Your task to perform on an android device: change alarm snooze length Image 0: 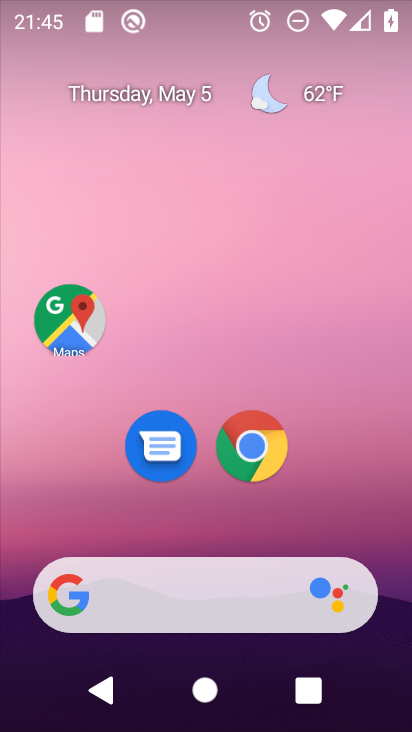
Step 0: drag from (309, 647) to (199, 151)
Your task to perform on an android device: change alarm snooze length Image 1: 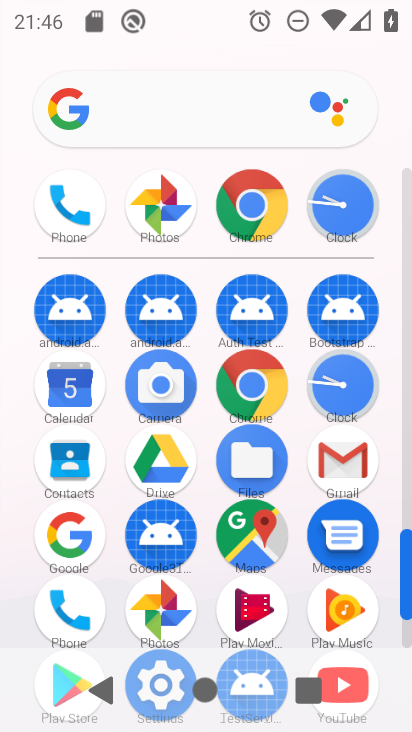
Step 1: drag from (116, 507) to (109, 385)
Your task to perform on an android device: change alarm snooze length Image 2: 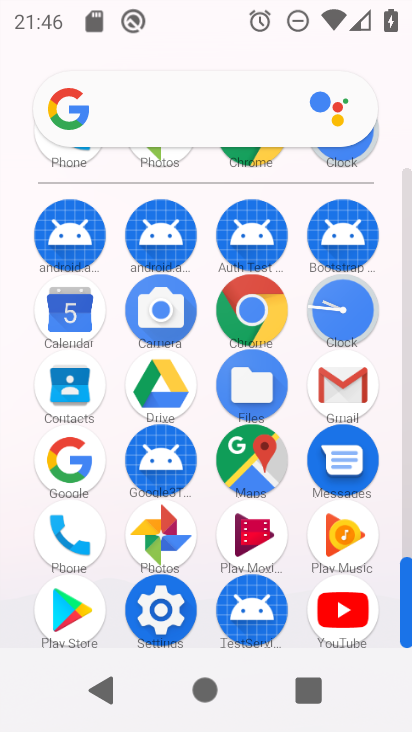
Step 2: click (173, 611)
Your task to perform on an android device: change alarm snooze length Image 3: 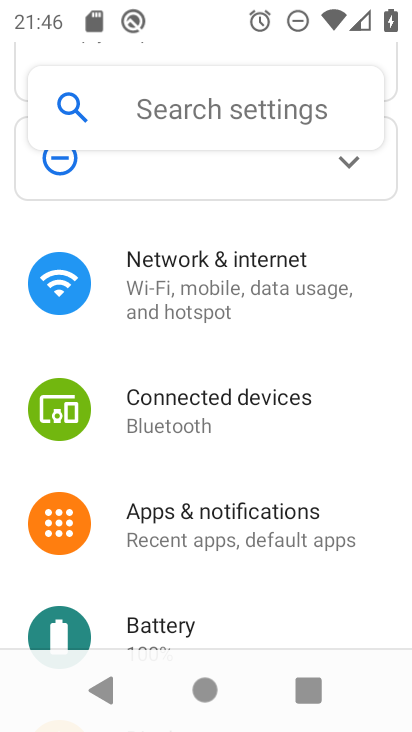
Step 3: press home button
Your task to perform on an android device: change alarm snooze length Image 4: 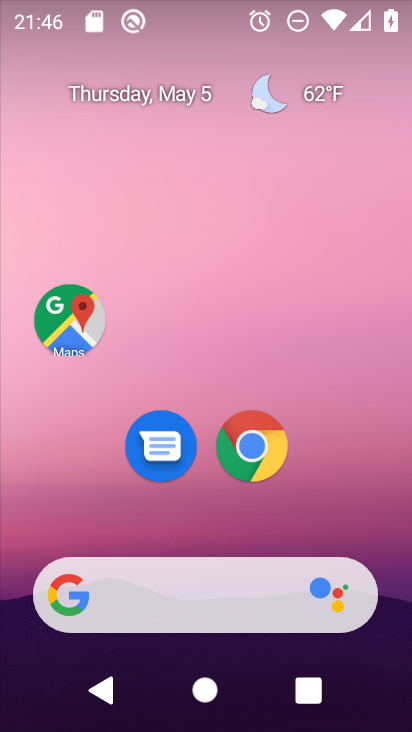
Step 4: drag from (326, 634) to (278, 271)
Your task to perform on an android device: change alarm snooze length Image 5: 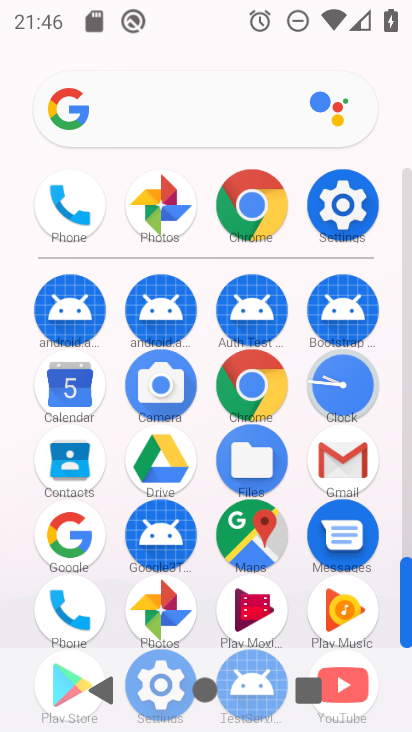
Step 5: click (353, 384)
Your task to perform on an android device: change alarm snooze length Image 6: 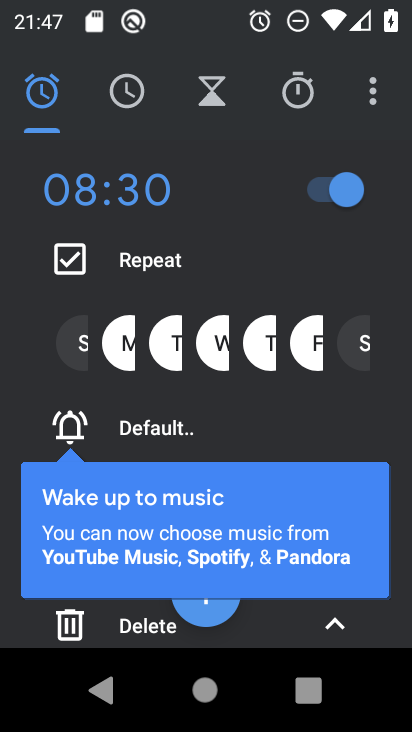
Step 6: click (362, 105)
Your task to perform on an android device: change alarm snooze length Image 7: 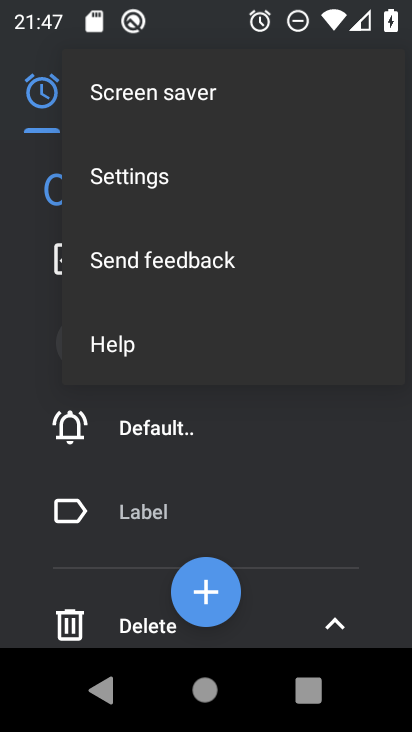
Step 7: click (208, 175)
Your task to perform on an android device: change alarm snooze length Image 8: 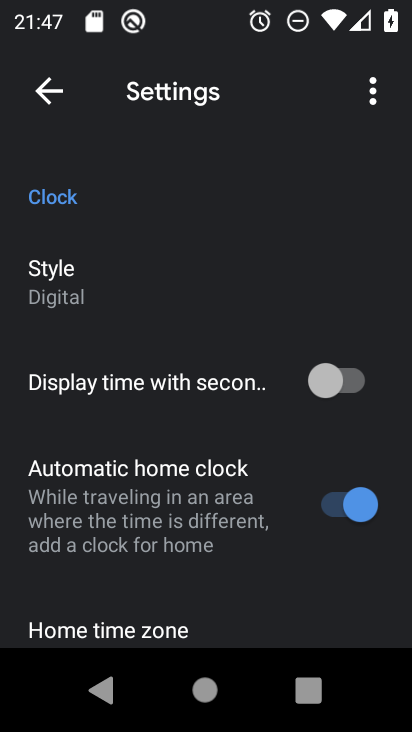
Step 8: drag from (194, 519) to (251, 208)
Your task to perform on an android device: change alarm snooze length Image 9: 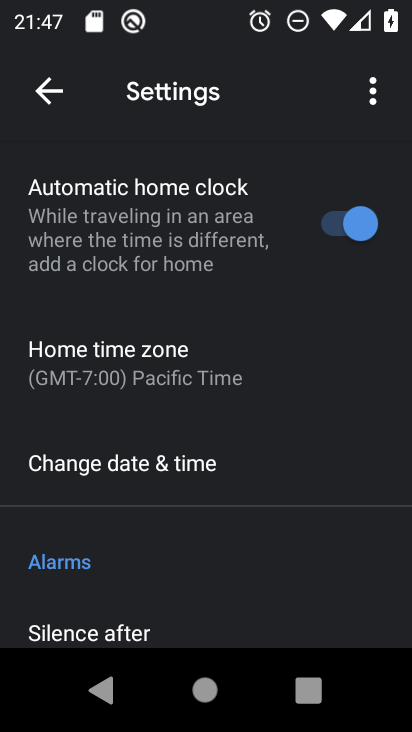
Step 9: drag from (232, 579) to (211, 240)
Your task to perform on an android device: change alarm snooze length Image 10: 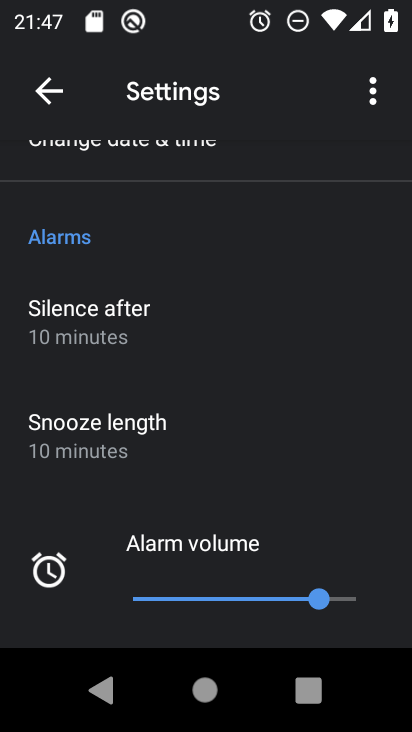
Step 10: click (153, 431)
Your task to perform on an android device: change alarm snooze length Image 11: 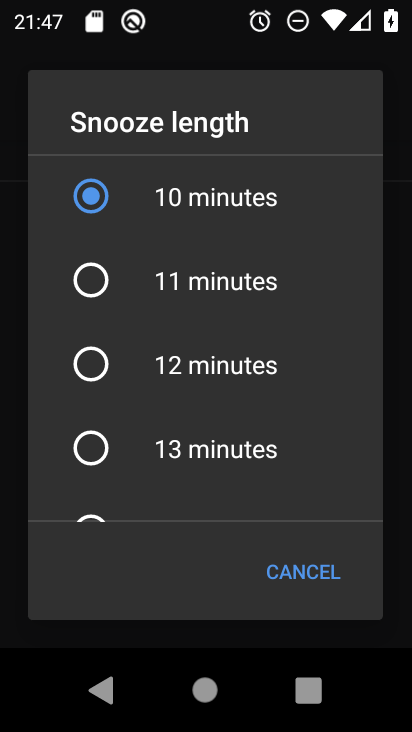
Step 11: click (158, 303)
Your task to perform on an android device: change alarm snooze length Image 12: 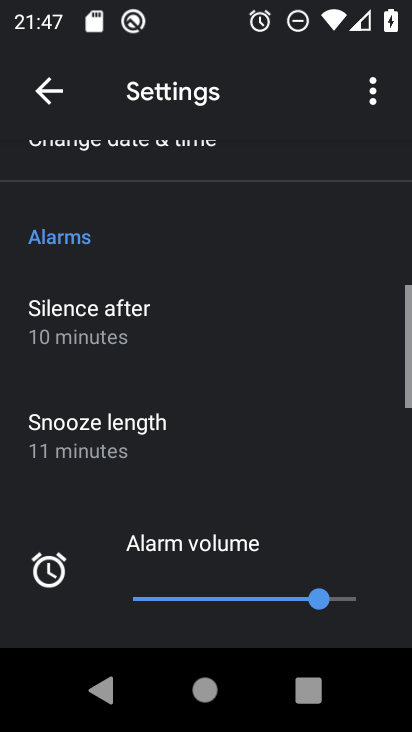
Step 12: task complete